Your task to perform on an android device: What is the recent news? Image 0: 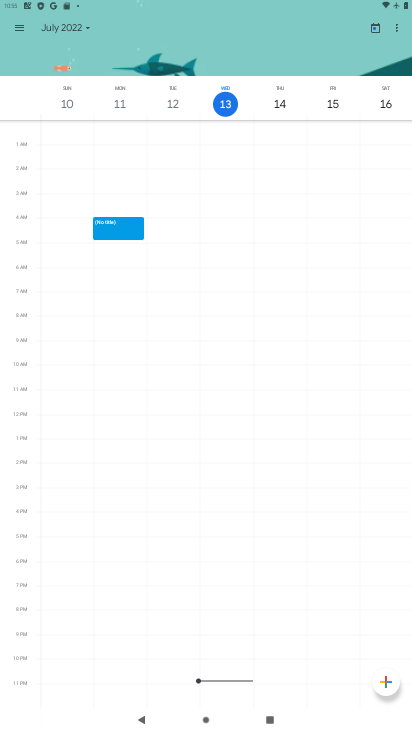
Step 0: press home button
Your task to perform on an android device: What is the recent news? Image 1: 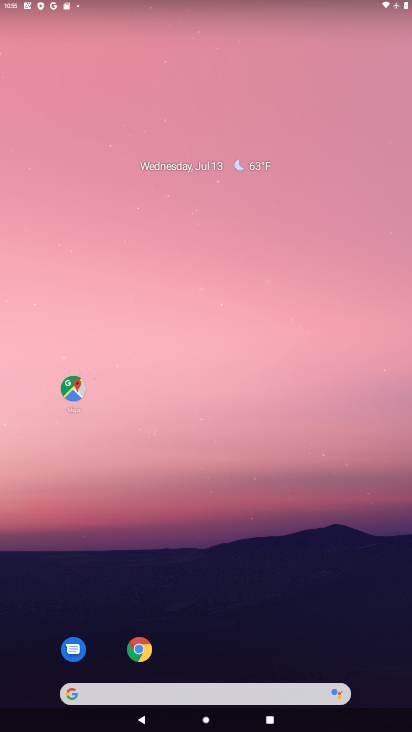
Step 1: drag from (218, 615) to (230, 169)
Your task to perform on an android device: What is the recent news? Image 2: 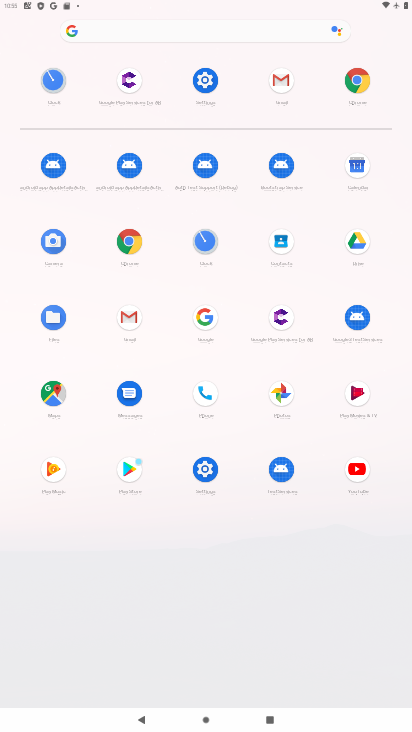
Step 2: click (361, 78)
Your task to perform on an android device: What is the recent news? Image 3: 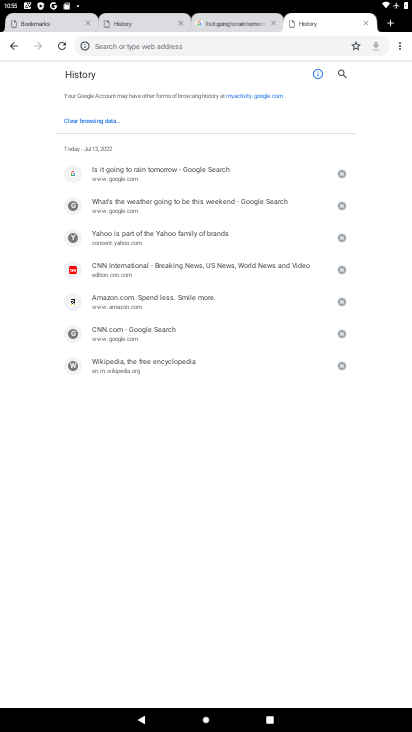
Step 3: click (370, 17)
Your task to perform on an android device: What is the recent news? Image 4: 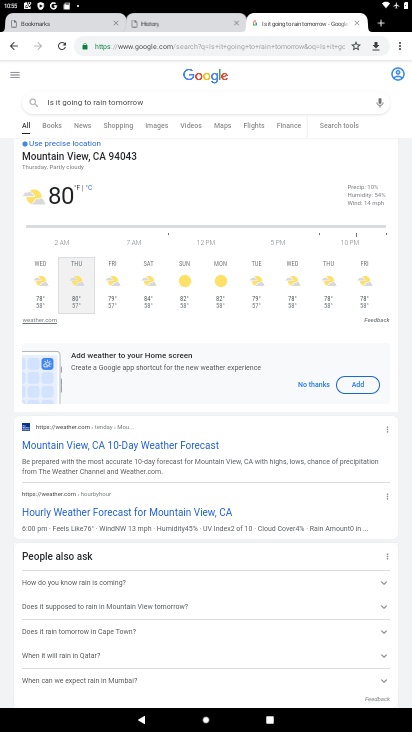
Step 4: click (376, 20)
Your task to perform on an android device: What is the recent news? Image 5: 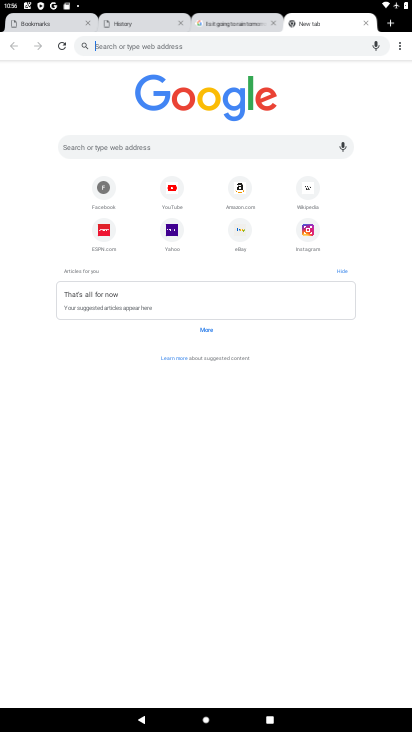
Step 5: click (230, 147)
Your task to perform on an android device: What is the recent news? Image 6: 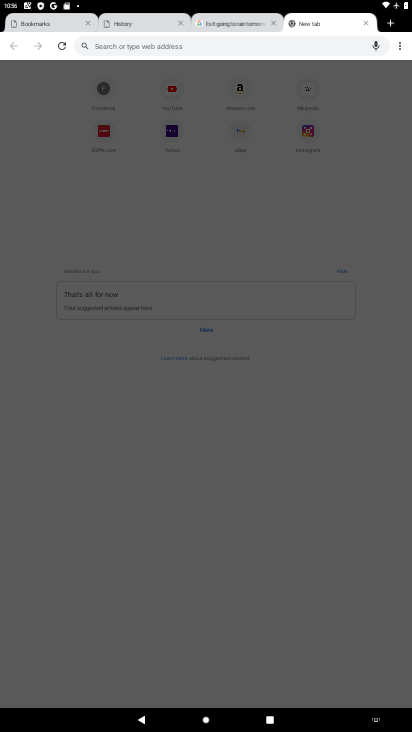
Step 6: type "What is the recent news "
Your task to perform on an android device: What is the recent news? Image 7: 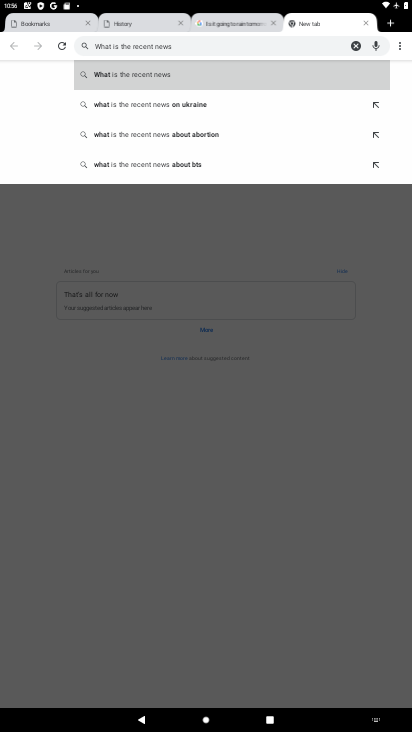
Step 7: click (198, 74)
Your task to perform on an android device: What is the recent news? Image 8: 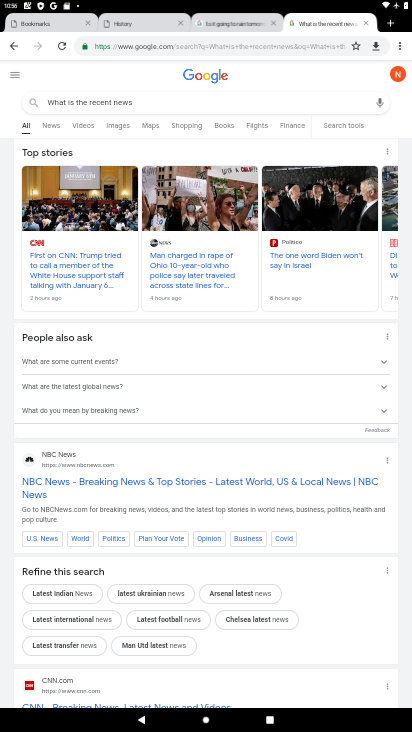
Step 8: task complete